Your task to perform on an android device: uninstall "Airtel Thanks" Image 0: 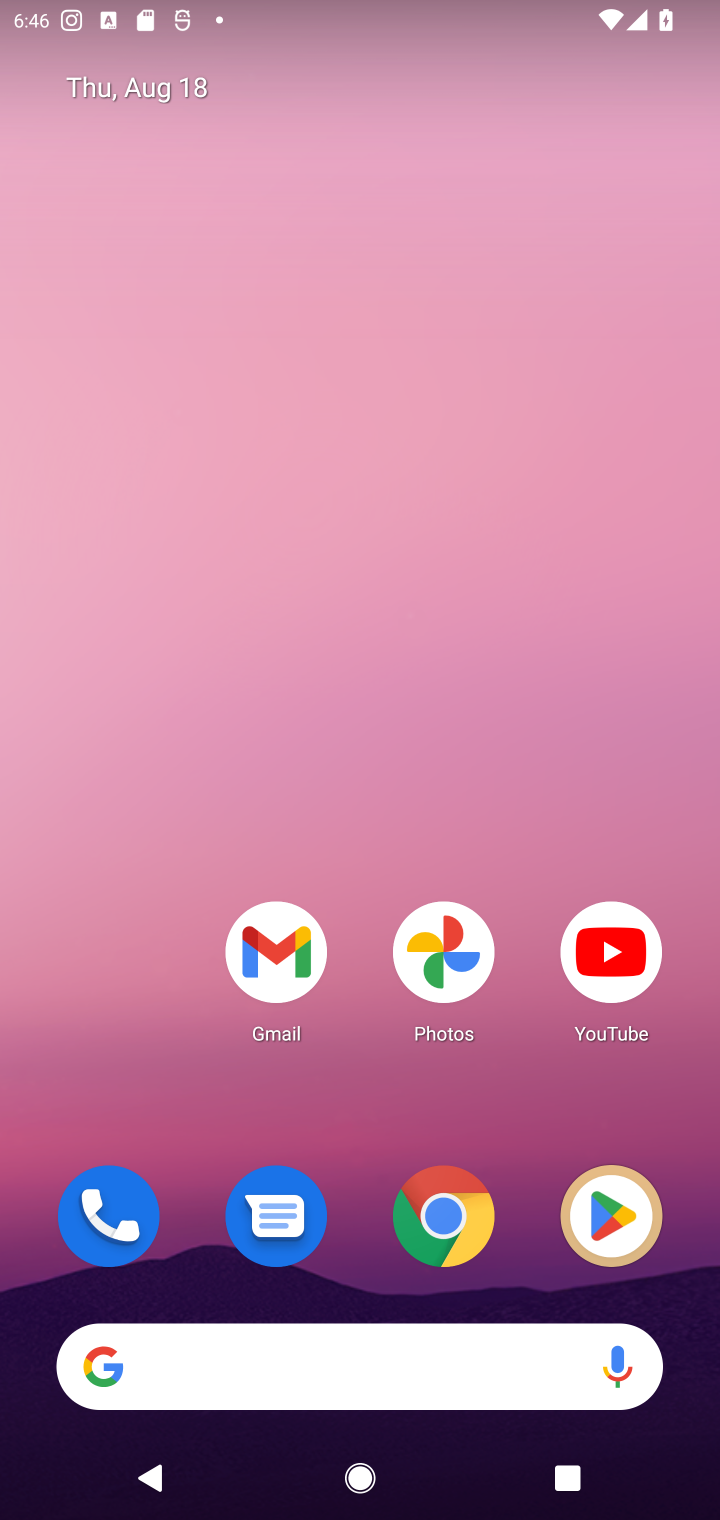
Step 0: click (591, 1203)
Your task to perform on an android device: uninstall "Airtel Thanks" Image 1: 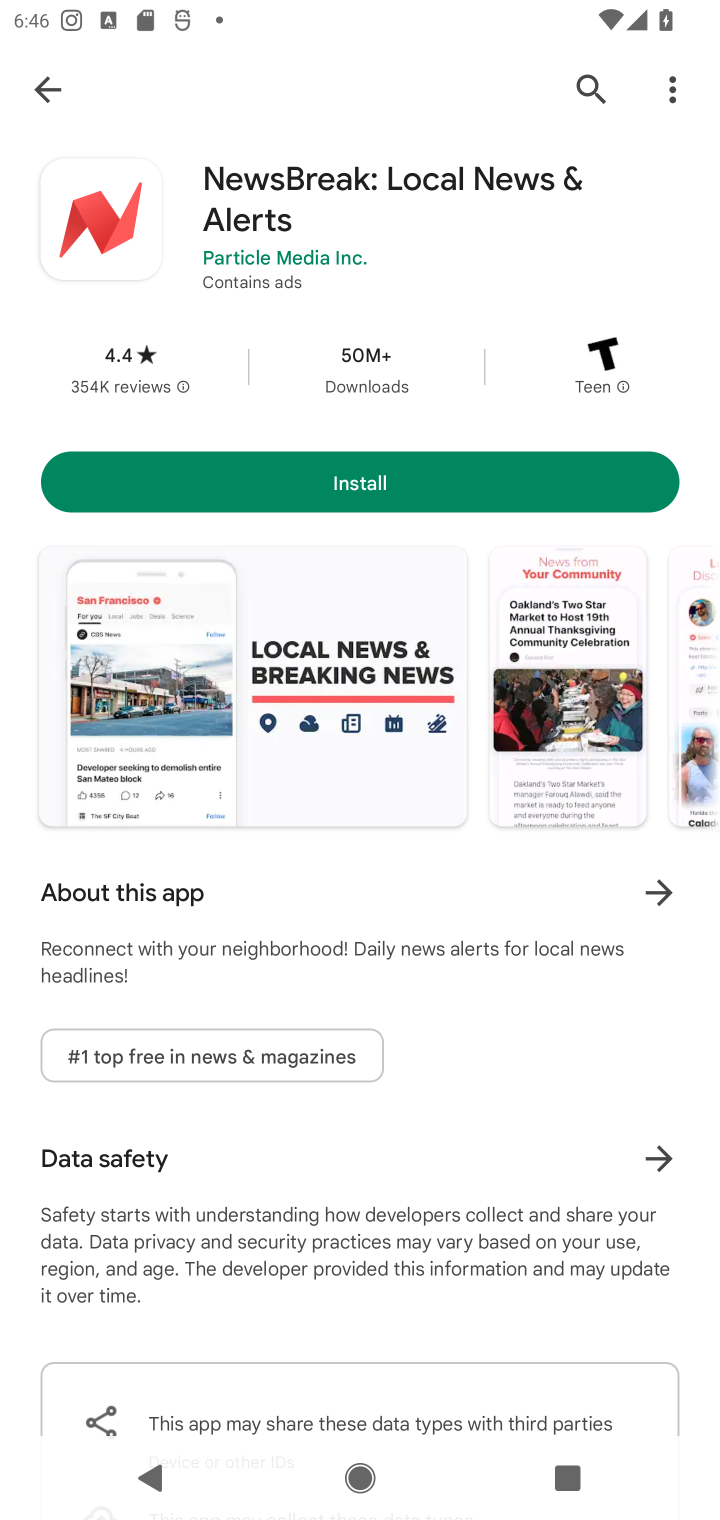
Step 1: click (591, 93)
Your task to perform on an android device: uninstall "Airtel Thanks" Image 2: 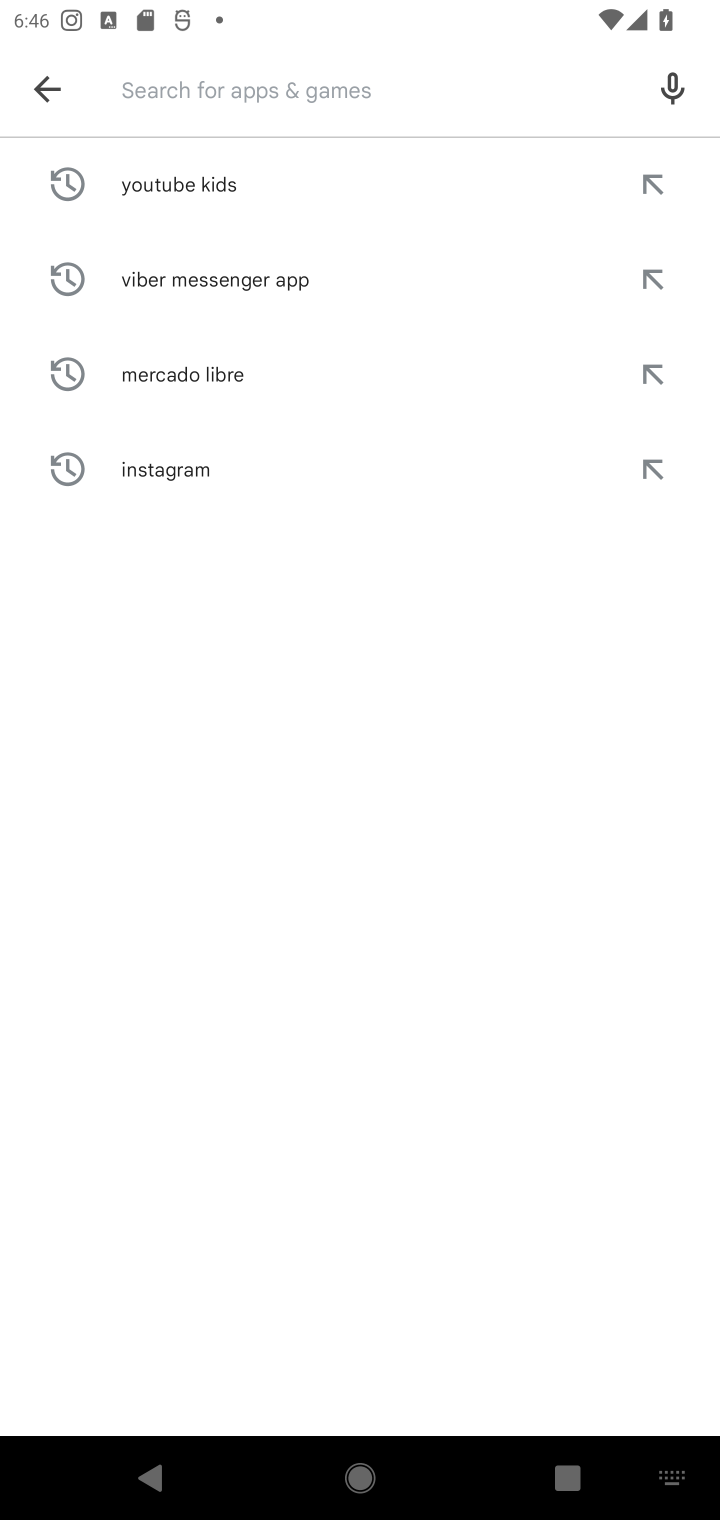
Step 2: type "Airtel Thanks"
Your task to perform on an android device: uninstall "Airtel Thanks" Image 3: 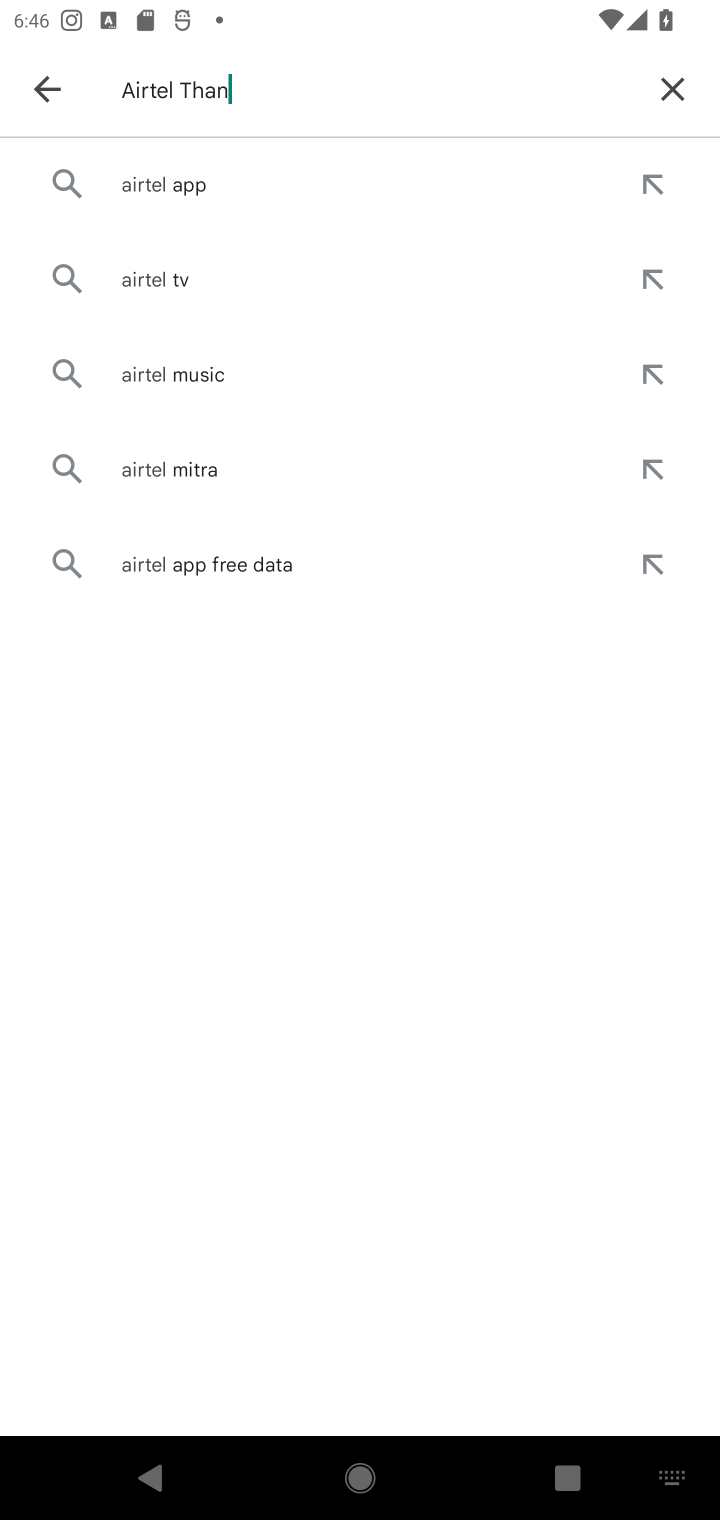
Step 3: type ""
Your task to perform on an android device: uninstall "Airtel Thanks" Image 4: 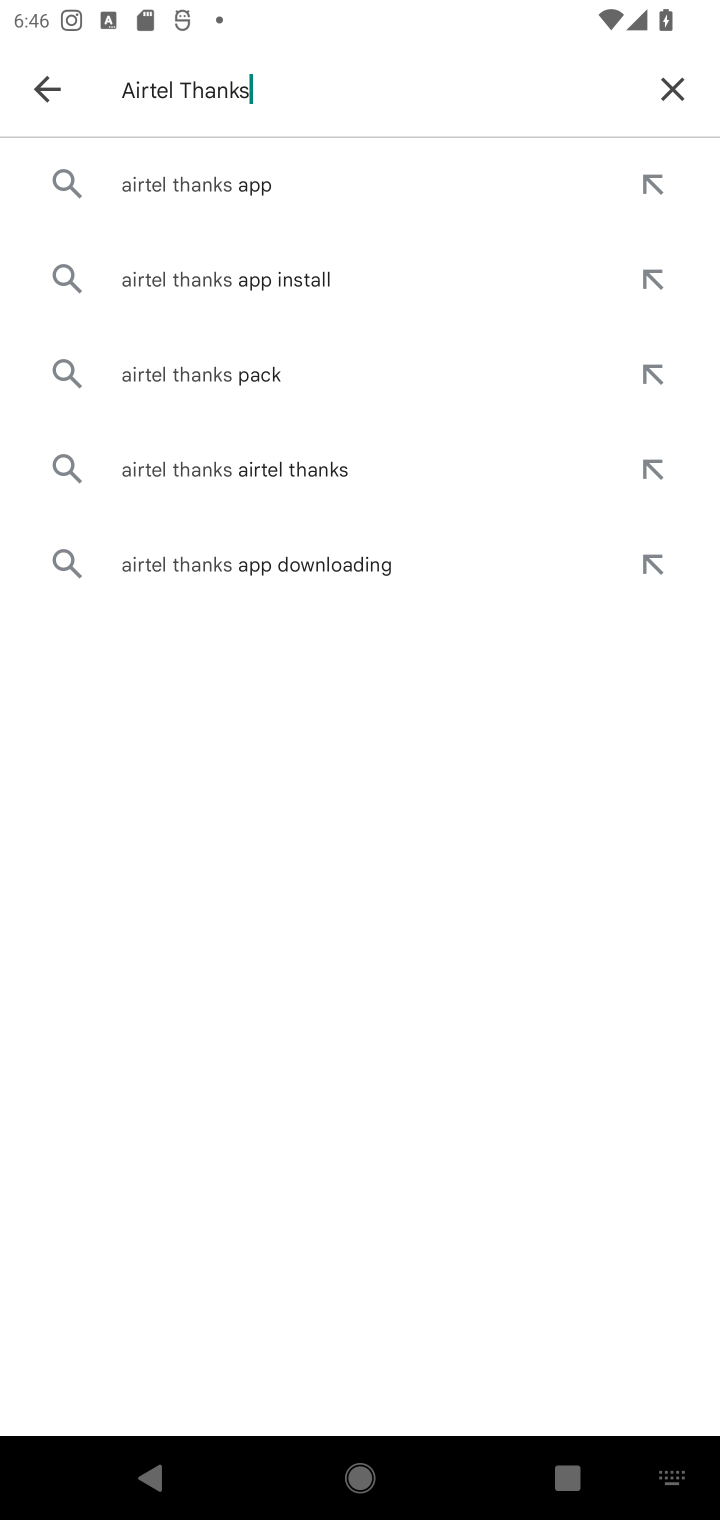
Step 4: click (314, 190)
Your task to perform on an android device: uninstall "Airtel Thanks" Image 5: 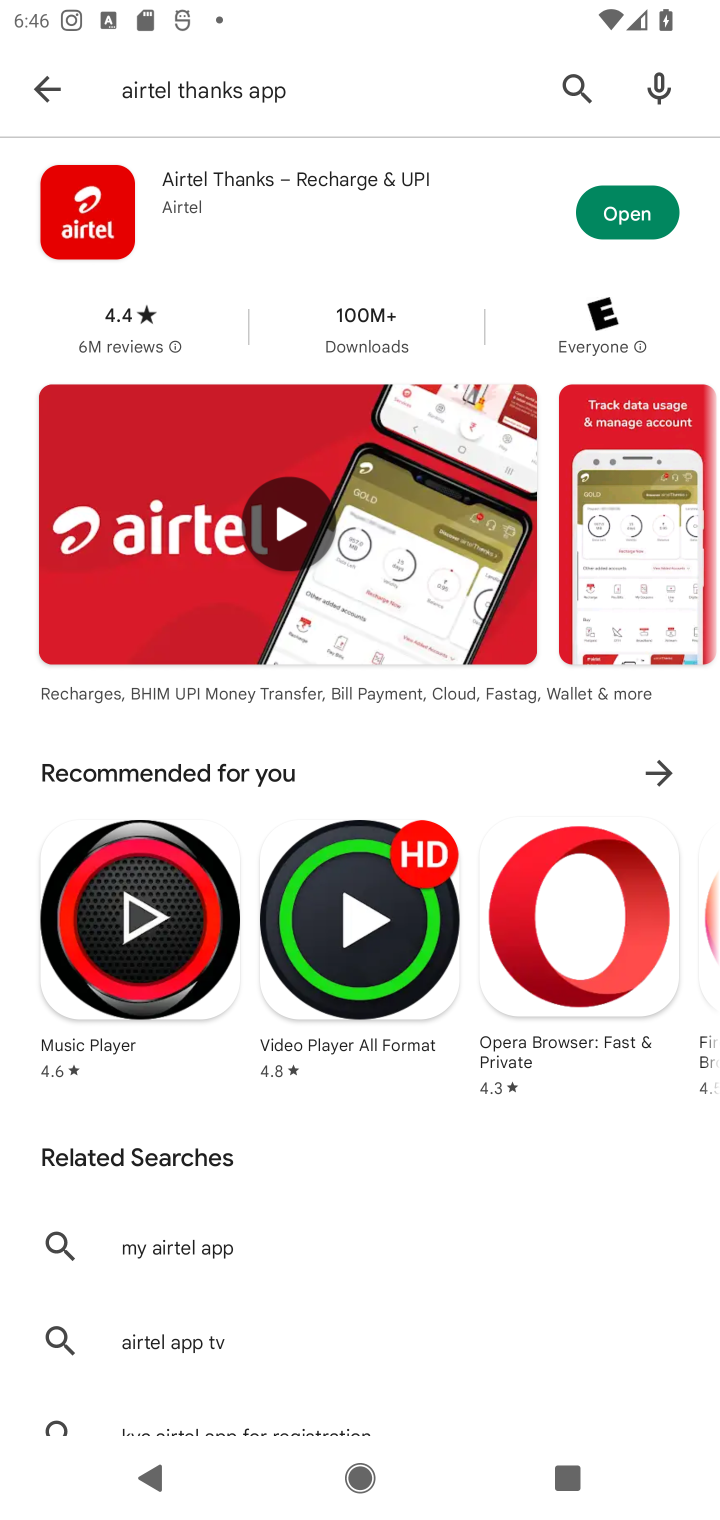
Step 5: click (397, 183)
Your task to perform on an android device: uninstall "Airtel Thanks" Image 6: 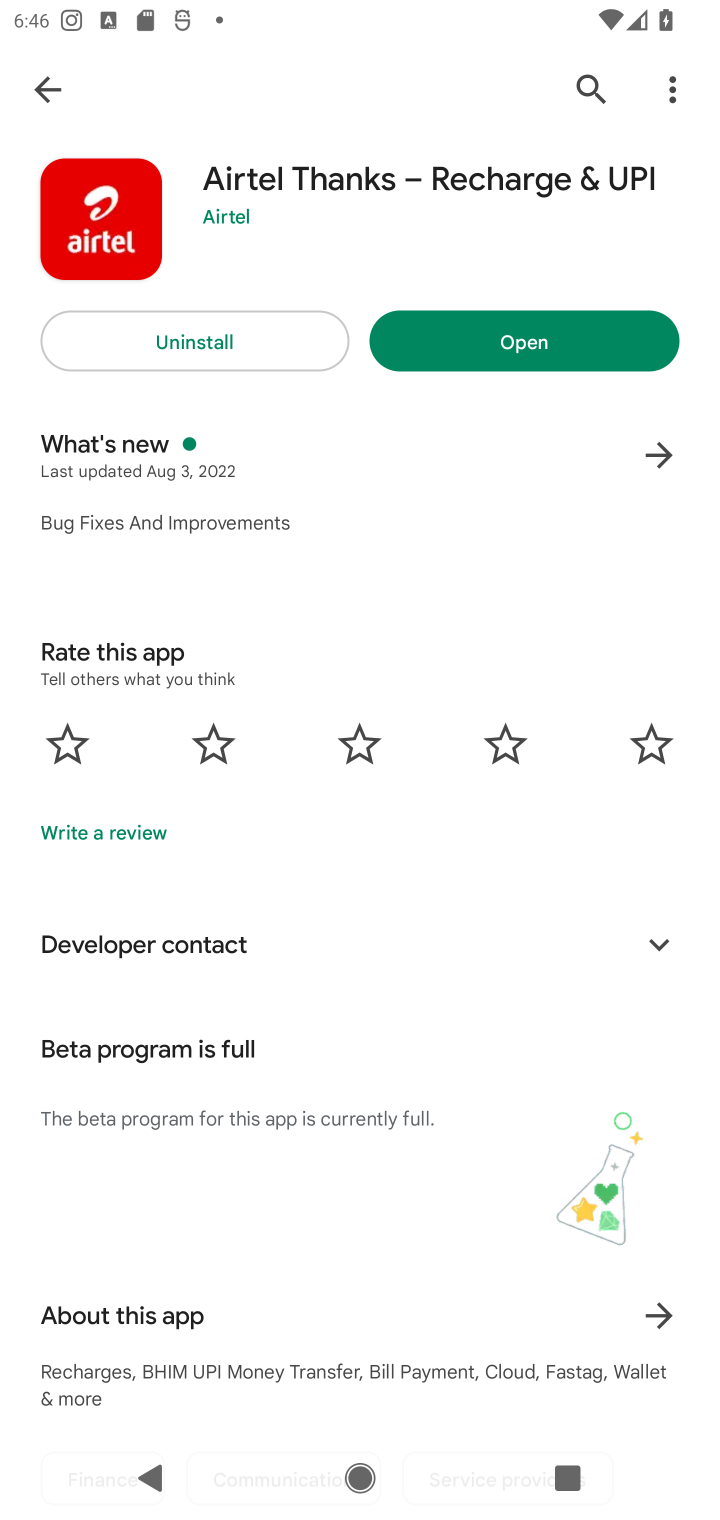
Step 6: click (259, 339)
Your task to perform on an android device: uninstall "Airtel Thanks" Image 7: 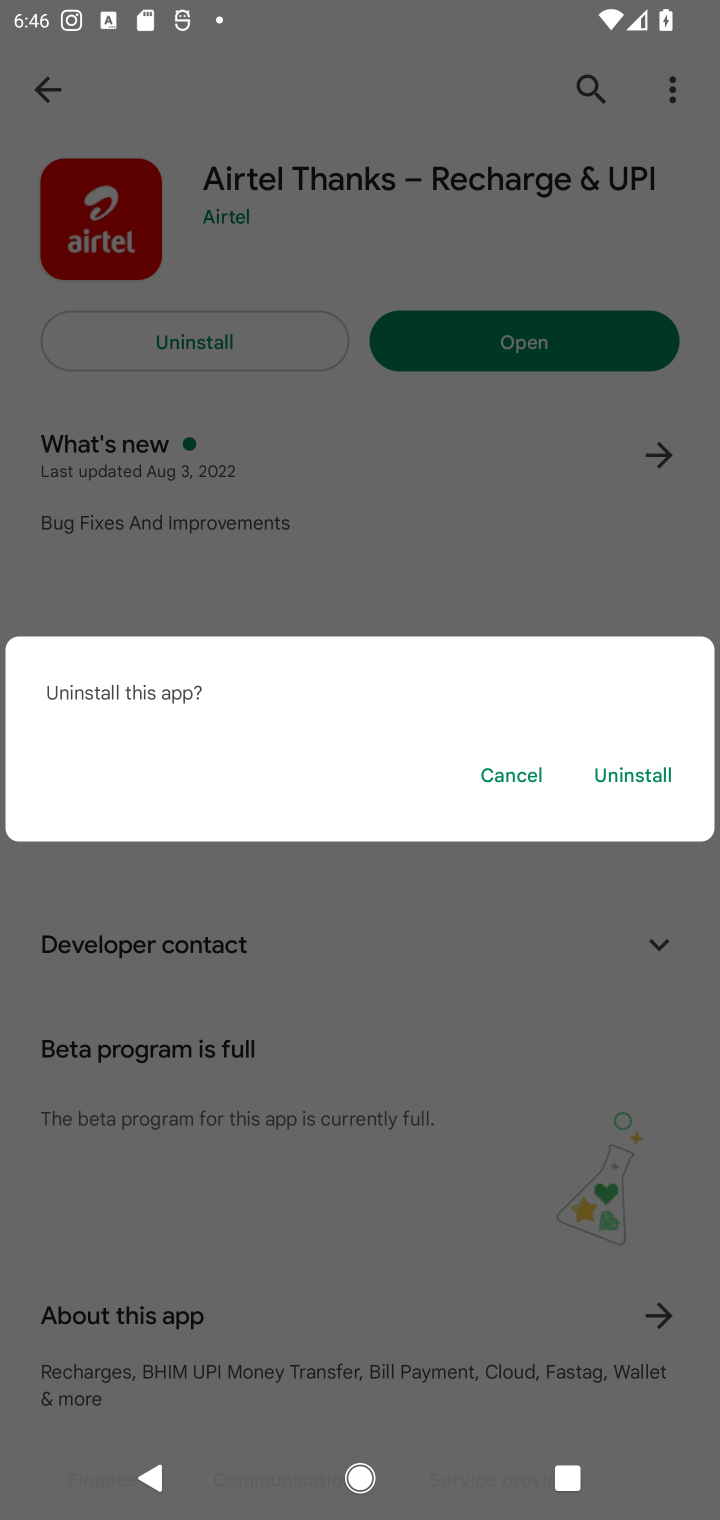
Step 7: click (604, 755)
Your task to perform on an android device: uninstall "Airtel Thanks" Image 8: 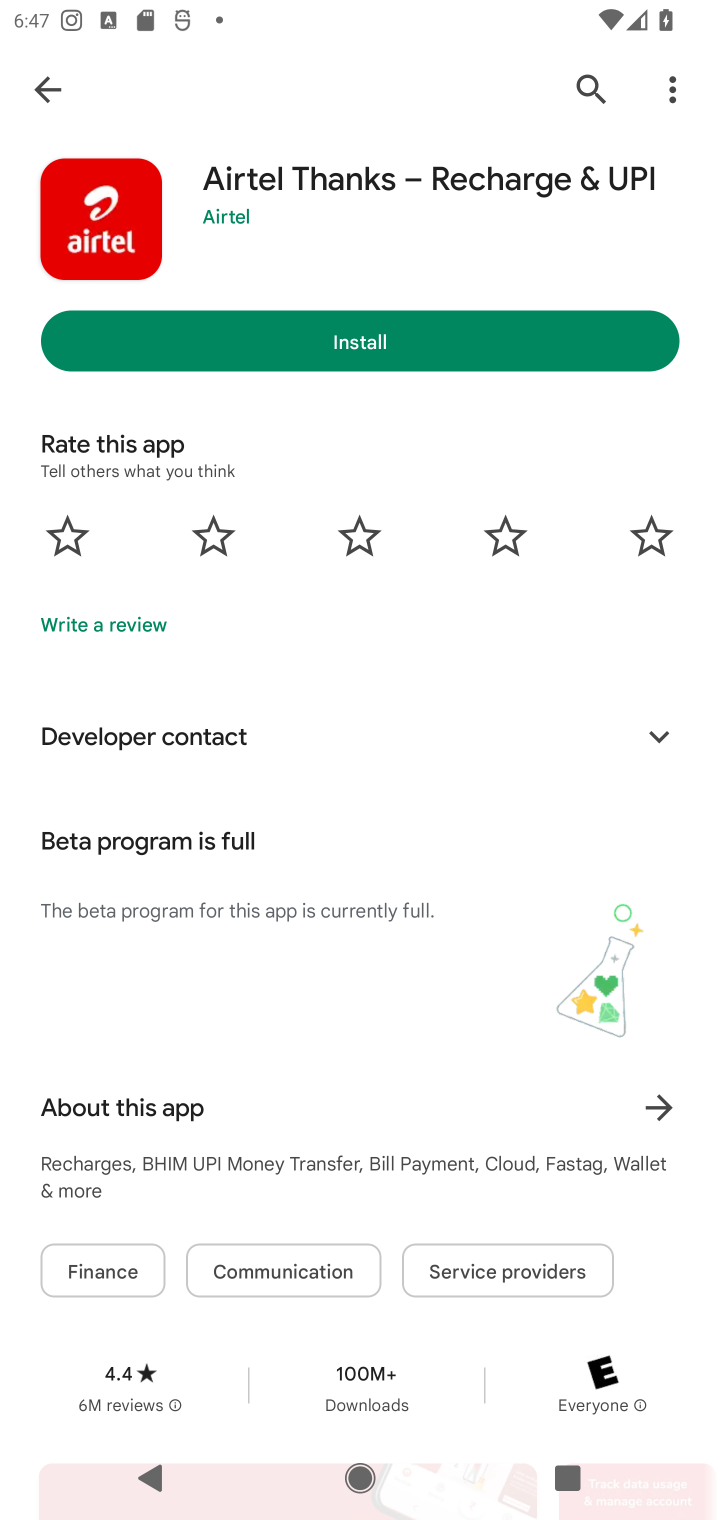
Step 8: task complete